Your task to perform on an android device: Show me productivity apps on the Play Store Image 0: 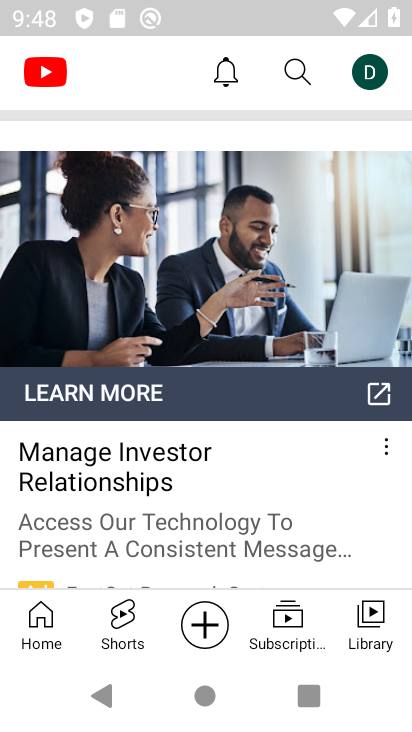
Step 0: press home button
Your task to perform on an android device: Show me productivity apps on the Play Store Image 1: 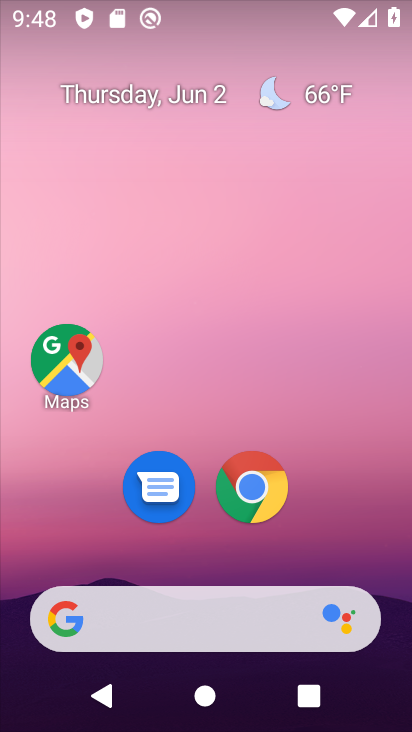
Step 1: drag from (226, 729) to (234, 105)
Your task to perform on an android device: Show me productivity apps on the Play Store Image 2: 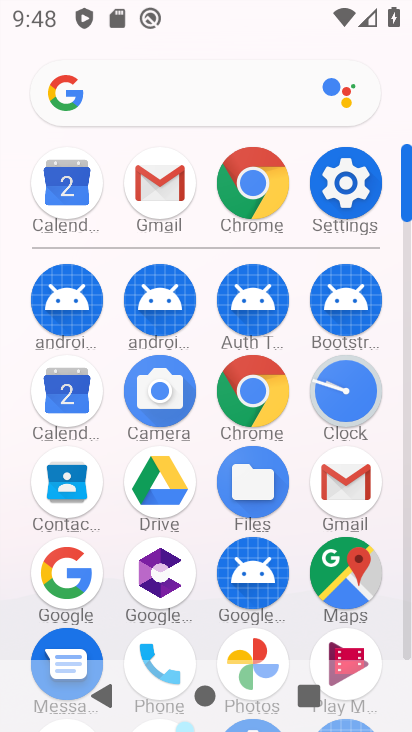
Step 2: drag from (293, 657) to (279, 278)
Your task to perform on an android device: Show me productivity apps on the Play Store Image 3: 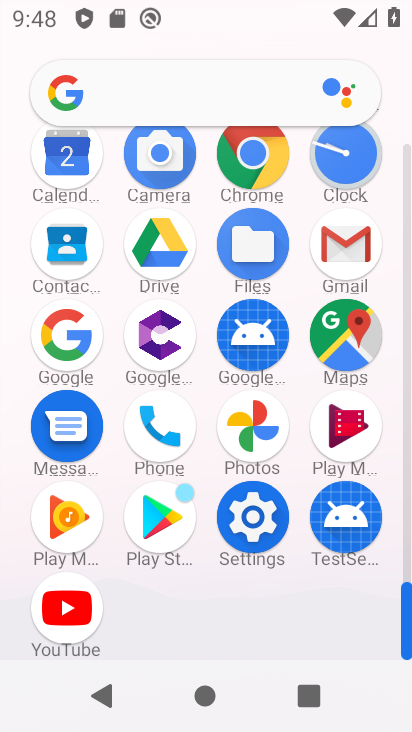
Step 3: click (166, 518)
Your task to perform on an android device: Show me productivity apps on the Play Store Image 4: 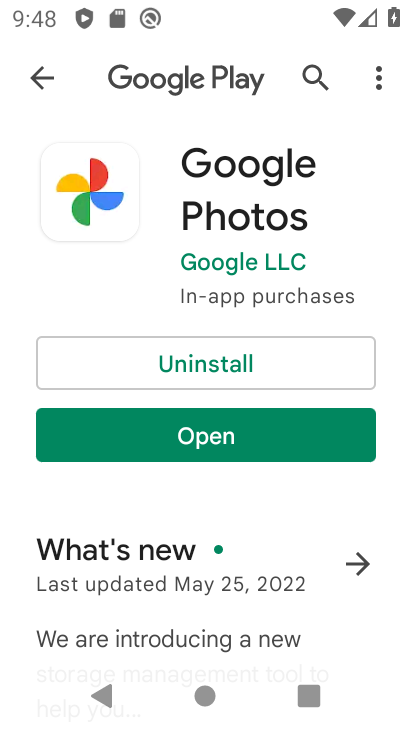
Step 4: click (44, 79)
Your task to perform on an android device: Show me productivity apps on the Play Store Image 5: 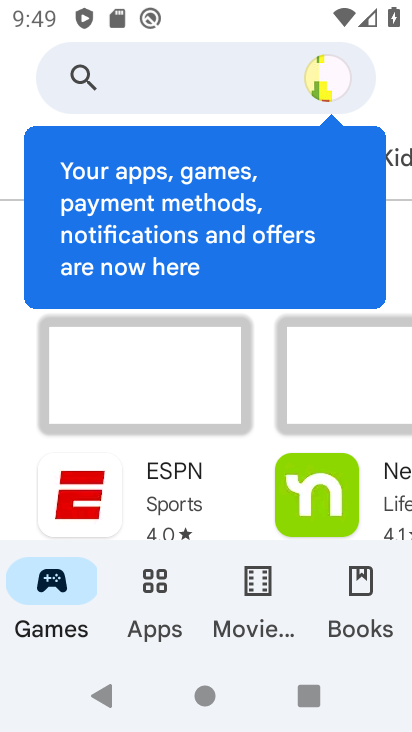
Step 5: click (153, 593)
Your task to perform on an android device: Show me productivity apps on the Play Store Image 6: 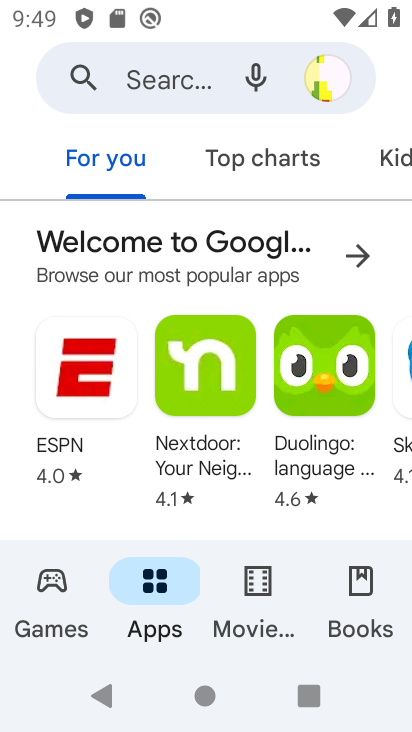
Step 6: drag from (387, 160) to (73, 181)
Your task to perform on an android device: Show me productivity apps on the Play Store Image 7: 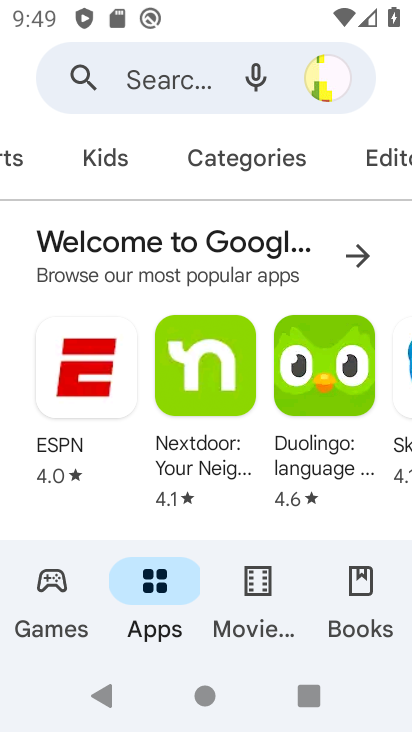
Step 7: click (242, 160)
Your task to perform on an android device: Show me productivity apps on the Play Store Image 8: 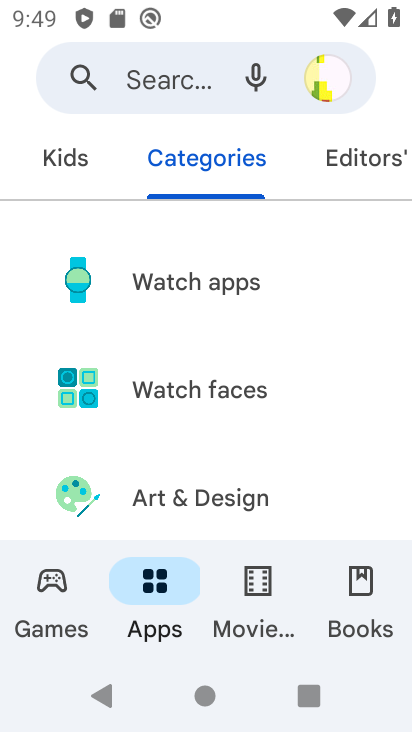
Step 8: drag from (223, 525) to (206, 196)
Your task to perform on an android device: Show me productivity apps on the Play Store Image 9: 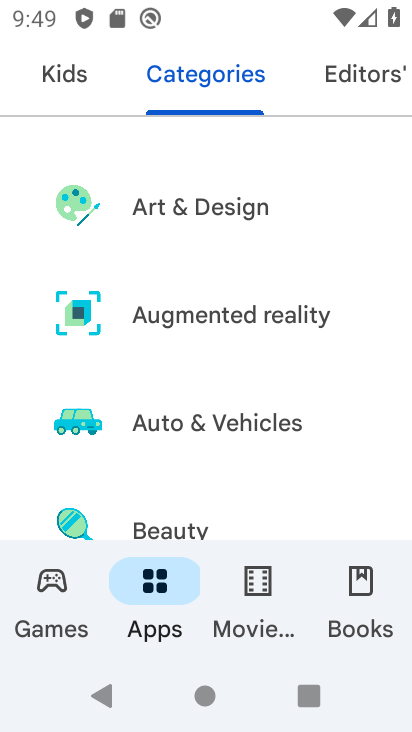
Step 9: drag from (207, 515) to (205, 141)
Your task to perform on an android device: Show me productivity apps on the Play Store Image 10: 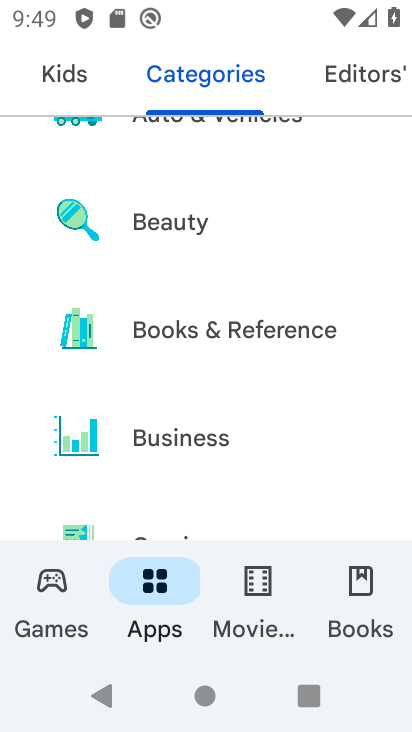
Step 10: drag from (202, 522) to (199, 194)
Your task to perform on an android device: Show me productivity apps on the Play Store Image 11: 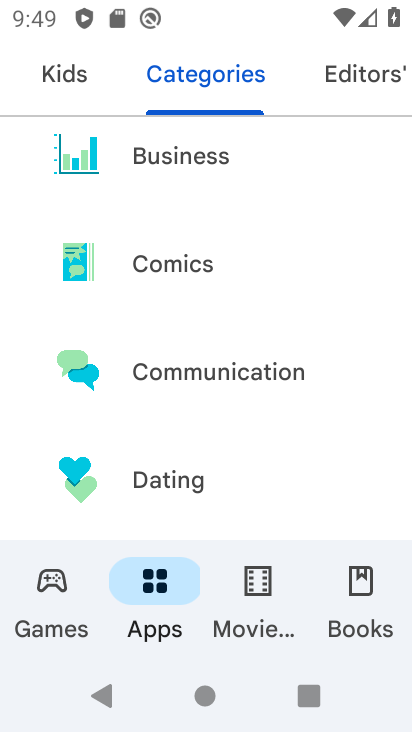
Step 11: drag from (207, 410) to (214, 109)
Your task to perform on an android device: Show me productivity apps on the Play Store Image 12: 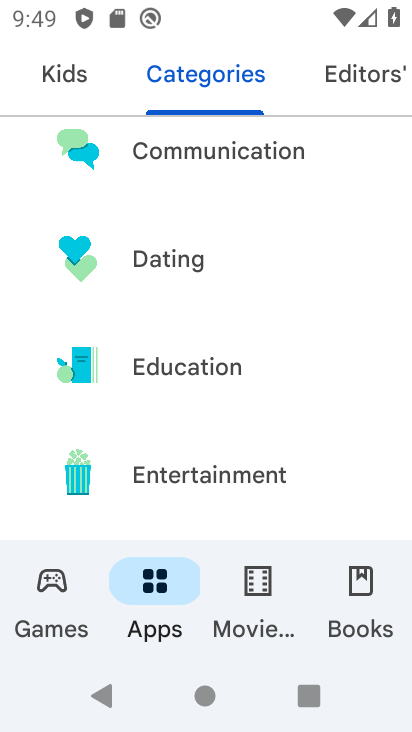
Step 12: drag from (229, 507) to (229, 181)
Your task to perform on an android device: Show me productivity apps on the Play Store Image 13: 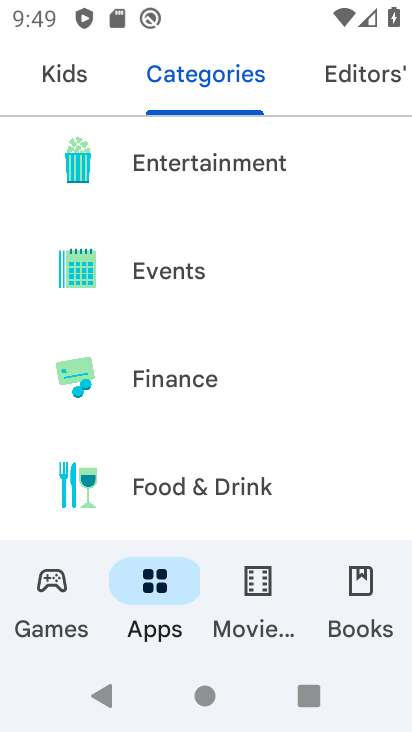
Step 13: drag from (224, 513) to (224, 157)
Your task to perform on an android device: Show me productivity apps on the Play Store Image 14: 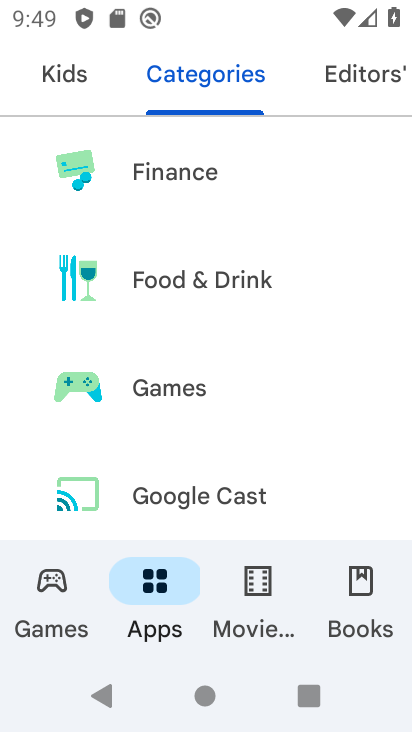
Step 14: drag from (191, 486) to (194, 169)
Your task to perform on an android device: Show me productivity apps on the Play Store Image 15: 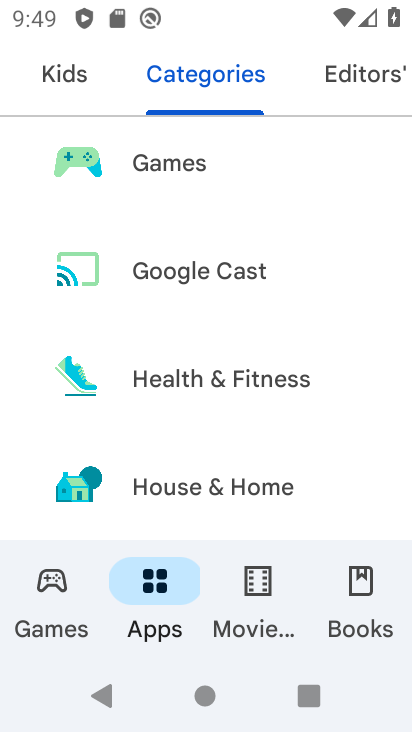
Step 15: drag from (186, 517) to (190, 180)
Your task to perform on an android device: Show me productivity apps on the Play Store Image 16: 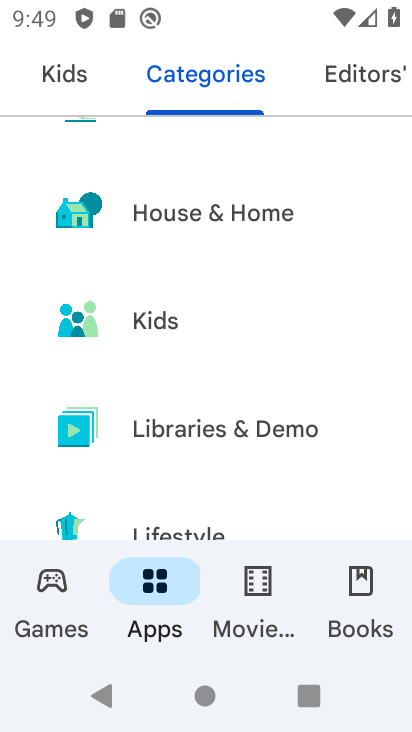
Step 16: drag from (198, 516) to (198, 179)
Your task to perform on an android device: Show me productivity apps on the Play Store Image 17: 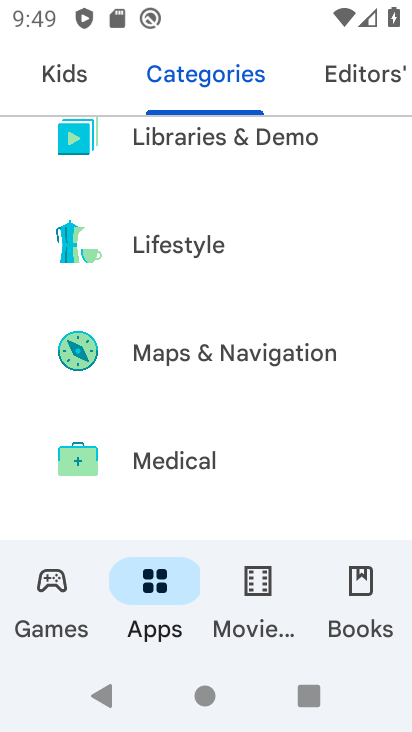
Step 17: drag from (177, 527) to (177, 110)
Your task to perform on an android device: Show me productivity apps on the Play Store Image 18: 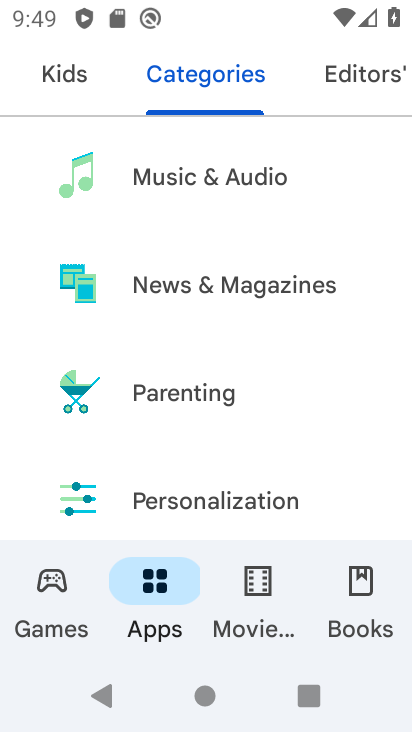
Step 18: drag from (192, 521) to (192, 190)
Your task to perform on an android device: Show me productivity apps on the Play Store Image 19: 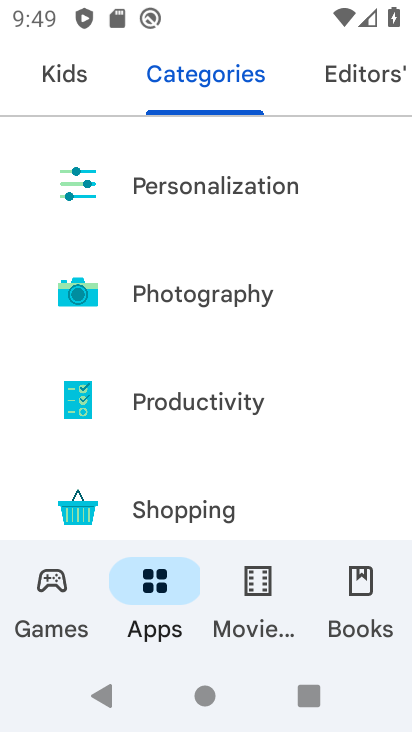
Step 19: click (203, 397)
Your task to perform on an android device: Show me productivity apps on the Play Store Image 20: 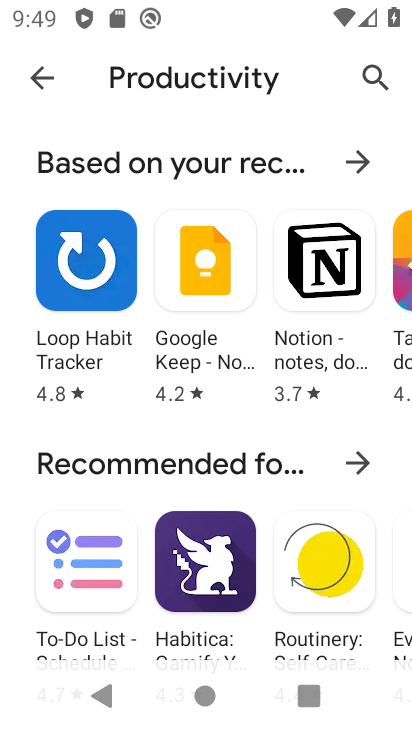
Step 20: task complete